Your task to perform on an android device: Open display settings Image 0: 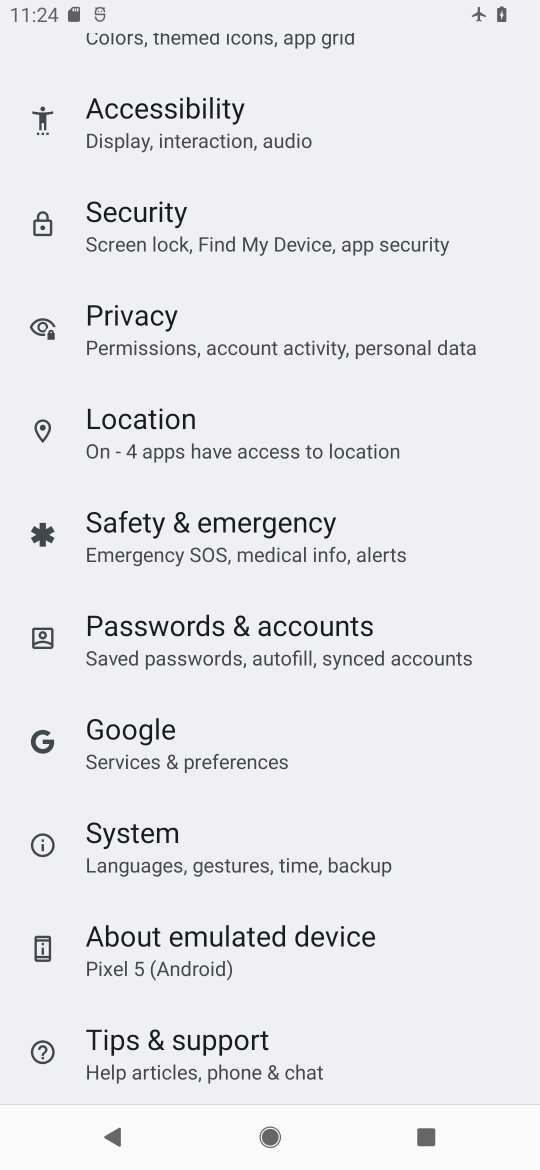
Step 0: drag from (148, 525) to (149, 960)
Your task to perform on an android device: Open display settings Image 1: 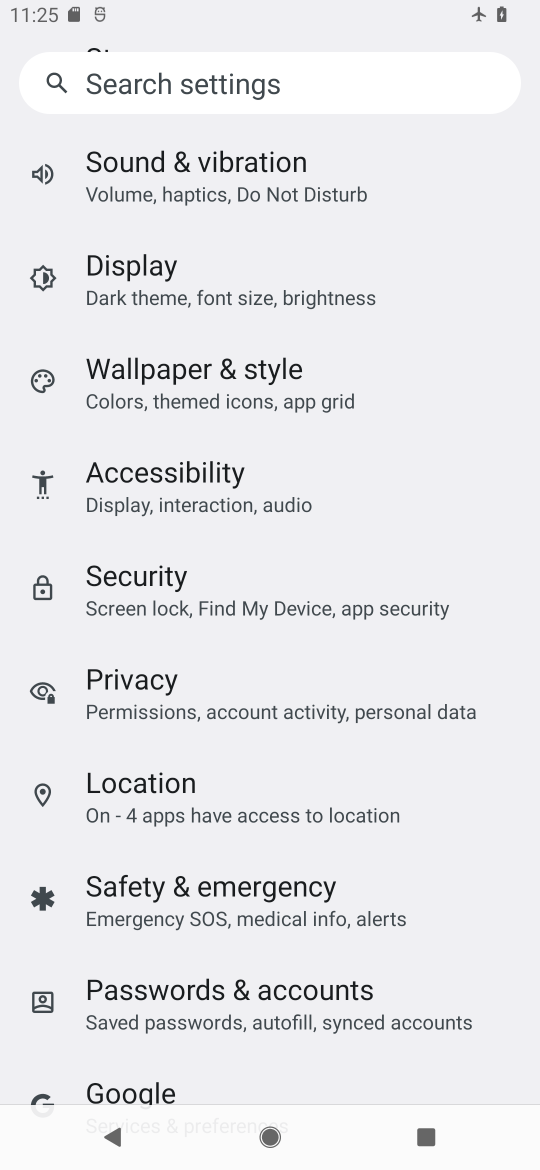
Step 1: drag from (218, 287) to (223, 350)
Your task to perform on an android device: Open display settings Image 2: 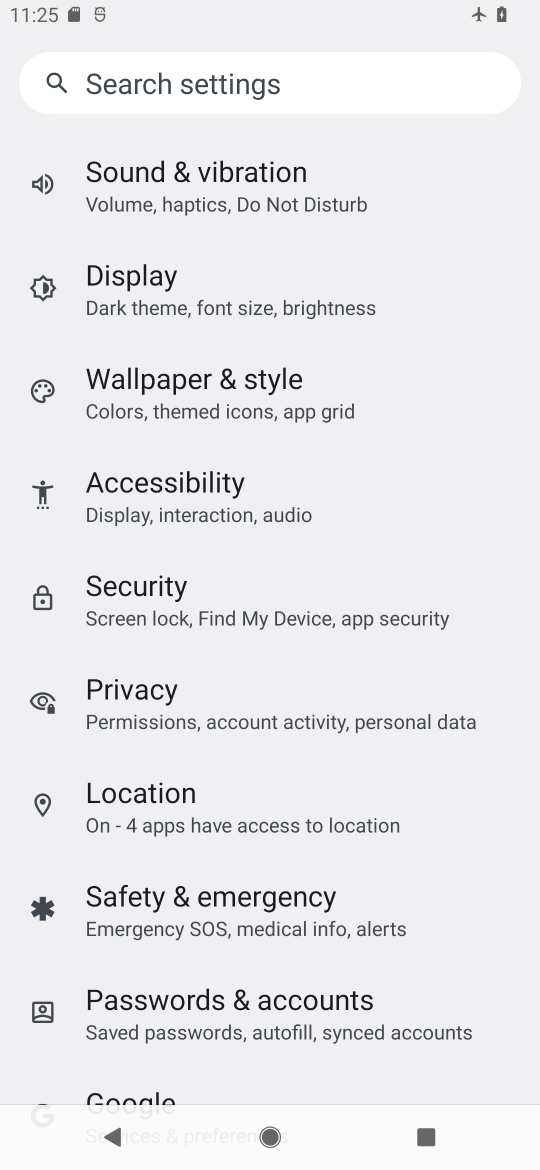
Step 2: click (175, 297)
Your task to perform on an android device: Open display settings Image 3: 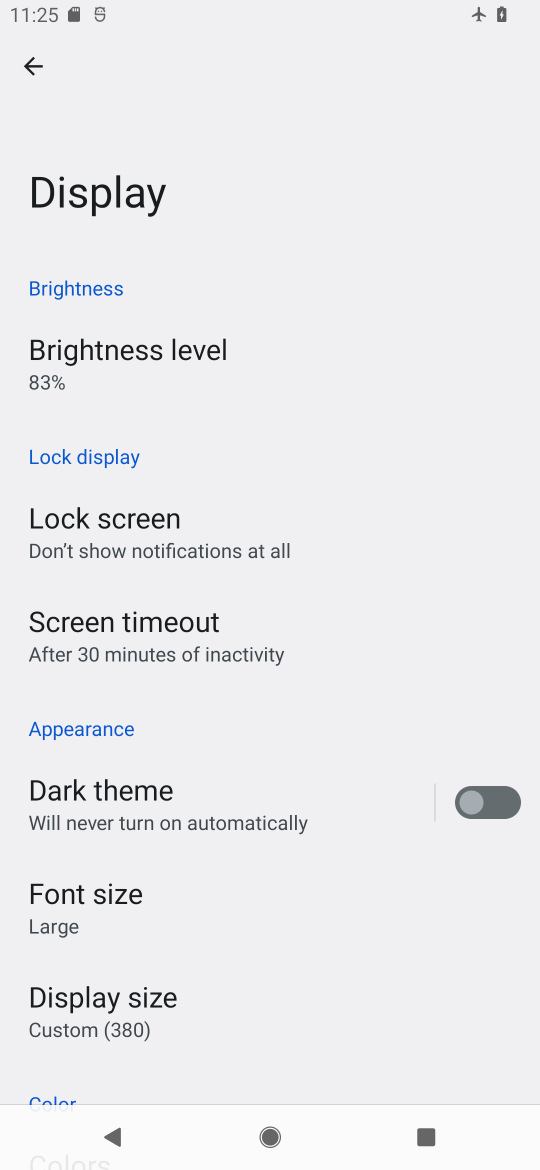
Step 3: task complete